Your task to perform on an android device: turn on notifications settings in the gmail app Image 0: 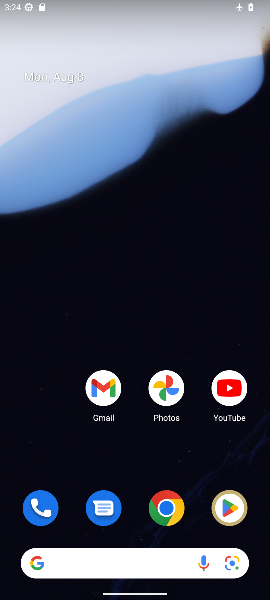
Step 0: click (103, 386)
Your task to perform on an android device: turn on notifications settings in the gmail app Image 1: 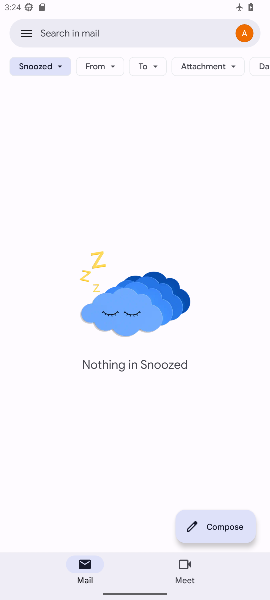
Step 1: click (31, 27)
Your task to perform on an android device: turn on notifications settings in the gmail app Image 2: 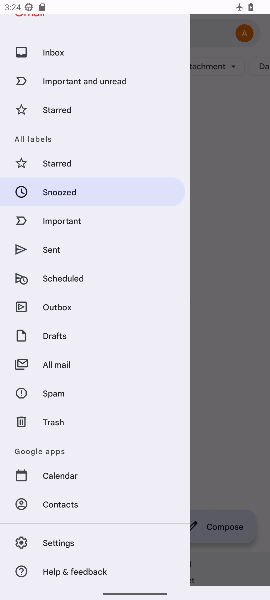
Step 2: click (63, 544)
Your task to perform on an android device: turn on notifications settings in the gmail app Image 3: 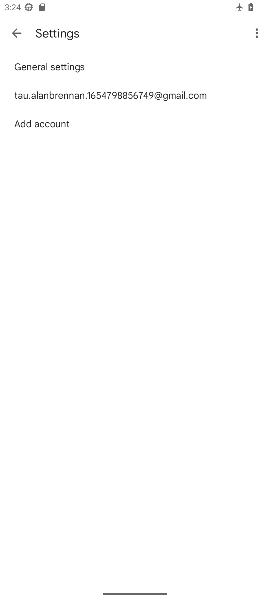
Step 3: click (42, 64)
Your task to perform on an android device: turn on notifications settings in the gmail app Image 4: 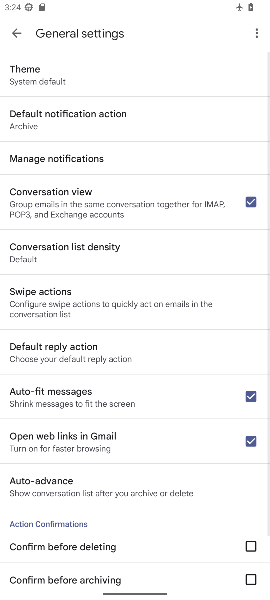
Step 4: click (70, 161)
Your task to perform on an android device: turn on notifications settings in the gmail app Image 5: 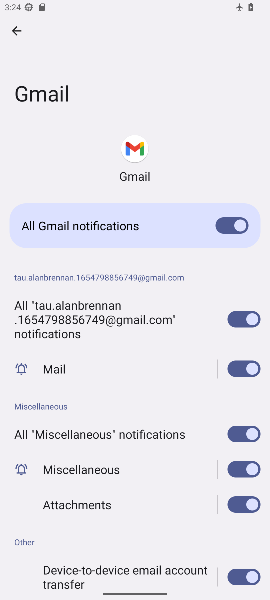
Step 5: task complete